Your task to perform on an android device: Add bose quietcomfort 35 to the cart on target Image 0: 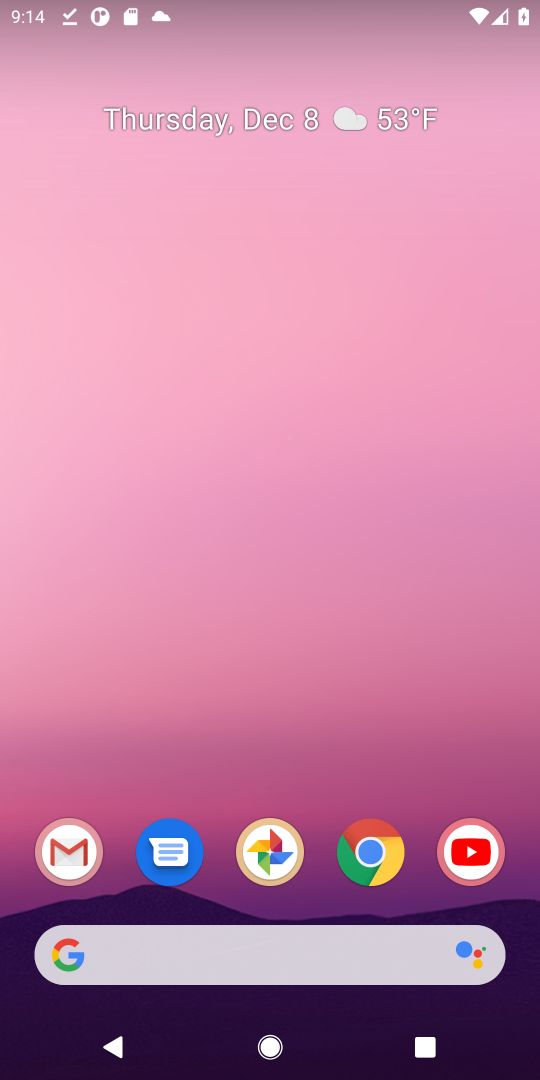
Step 0: click (320, 953)
Your task to perform on an android device: Add bose quietcomfort 35 to the cart on target Image 1: 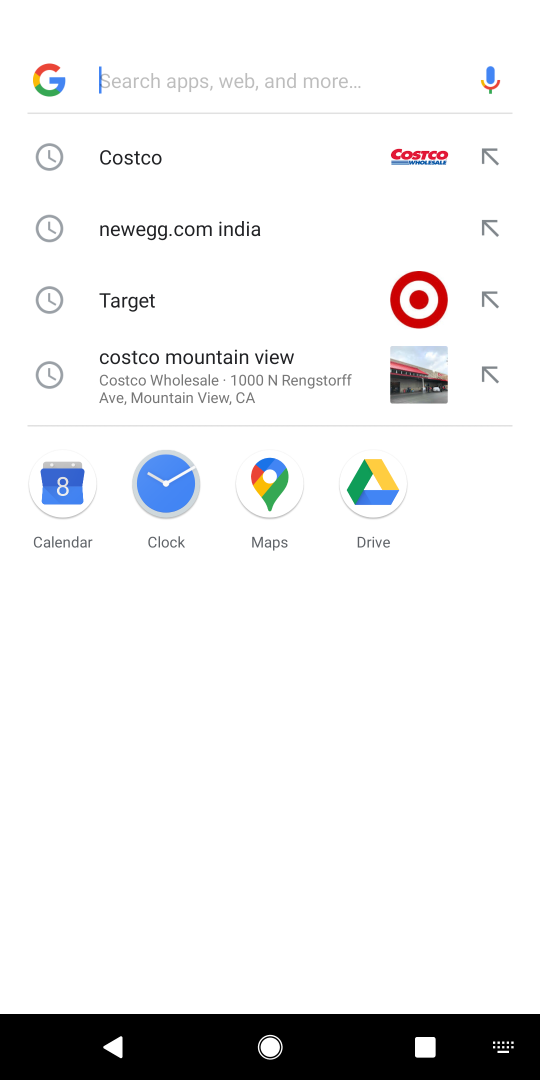
Step 1: type "bose quietcomfort 35"
Your task to perform on an android device: Add bose quietcomfort 35 to the cart on target Image 2: 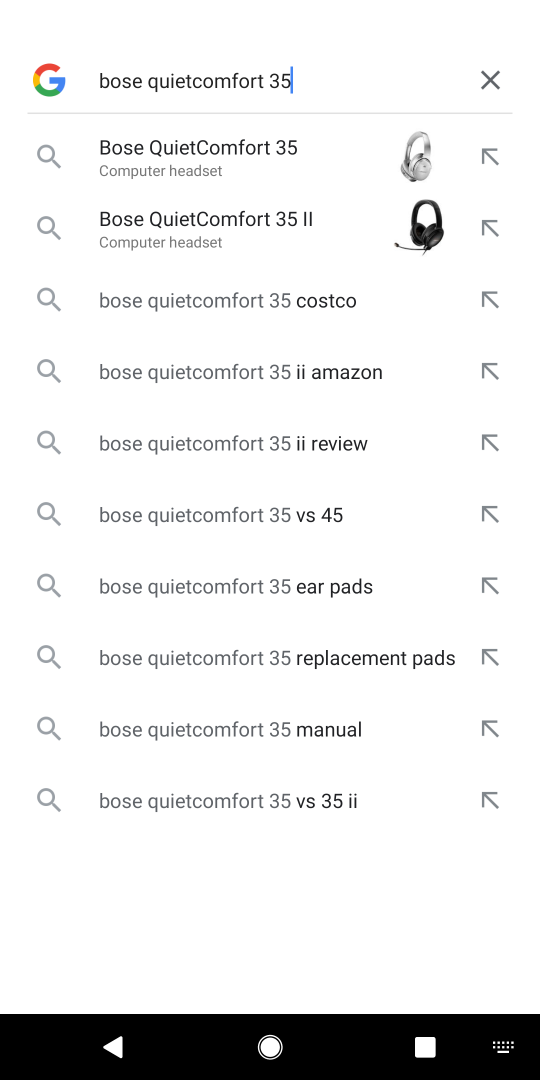
Step 2: click (182, 132)
Your task to perform on an android device: Add bose quietcomfort 35 to the cart on target Image 3: 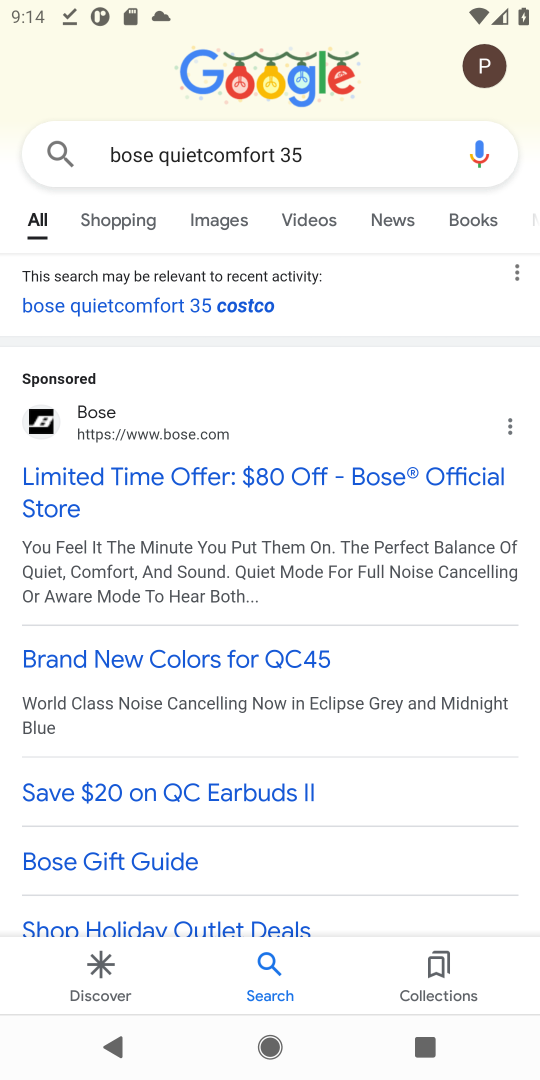
Step 3: click (55, 496)
Your task to perform on an android device: Add bose quietcomfort 35 to the cart on target Image 4: 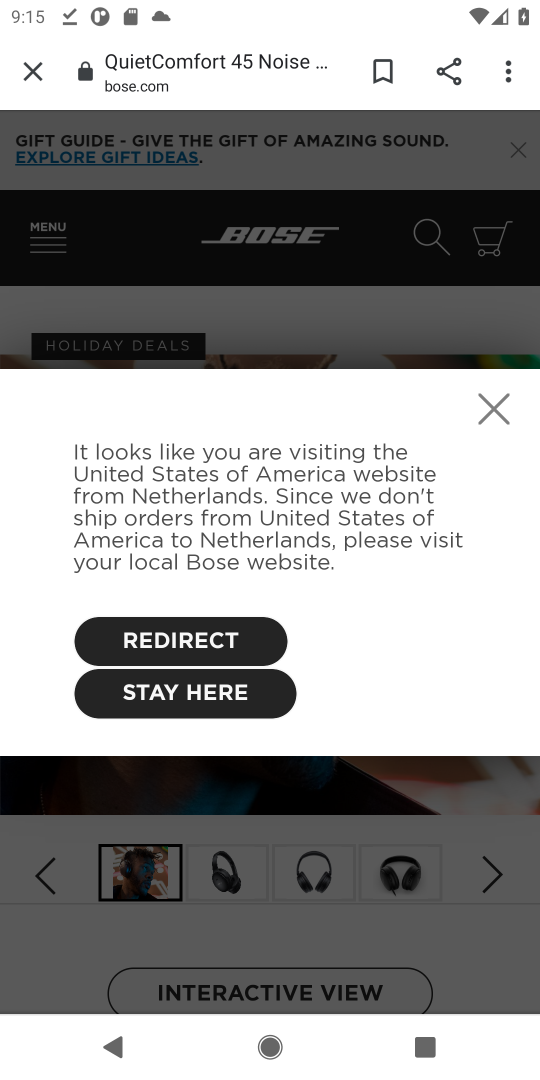
Step 4: click (241, 703)
Your task to perform on an android device: Add bose quietcomfort 35 to the cart on target Image 5: 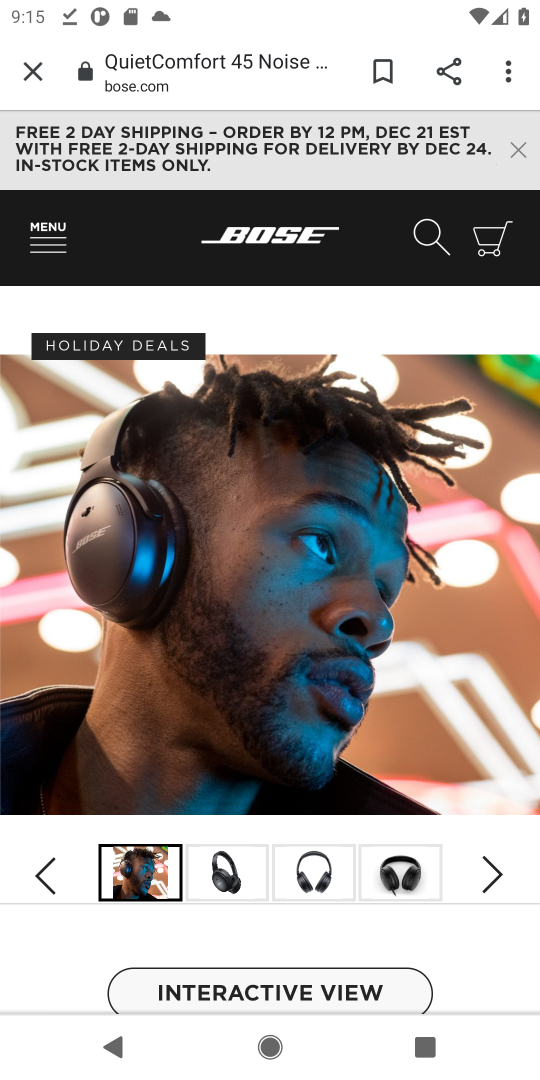
Step 5: task complete